Your task to perform on an android device: Go to internet settings Image 0: 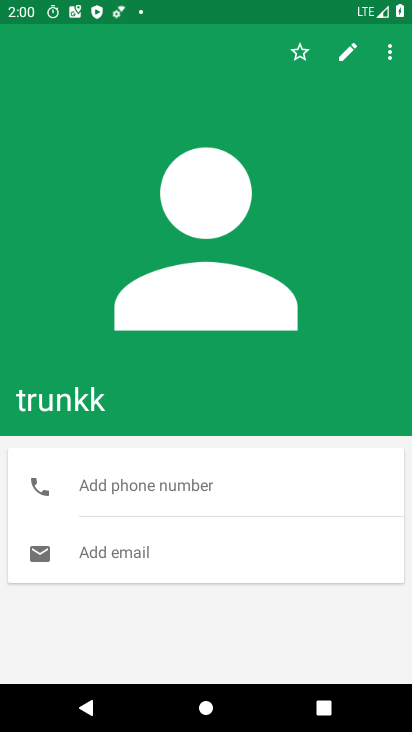
Step 0: press home button
Your task to perform on an android device: Go to internet settings Image 1: 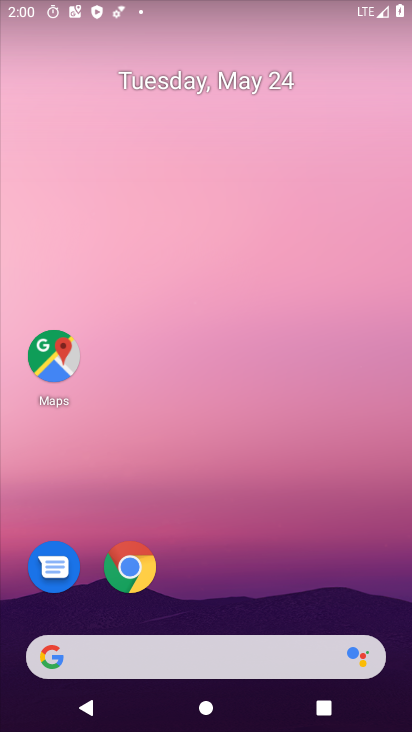
Step 1: drag from (181, 612) to (259, 89)
Your task to perform on an android device: Go to internet settings Image 2: 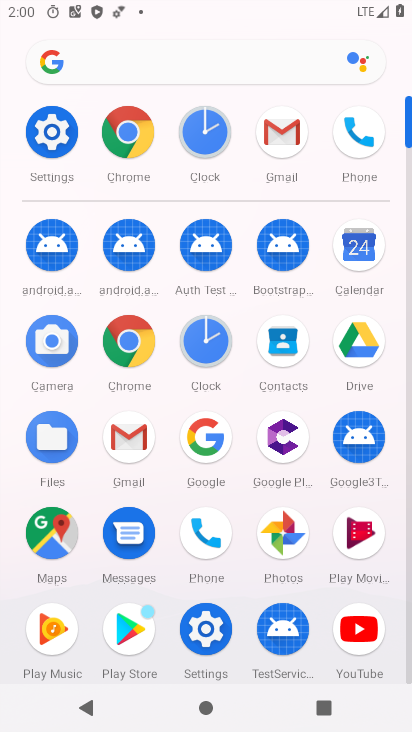
Step 2: click (64, 150)
Your task to perform on an android device: Go to internet settings Image 3: 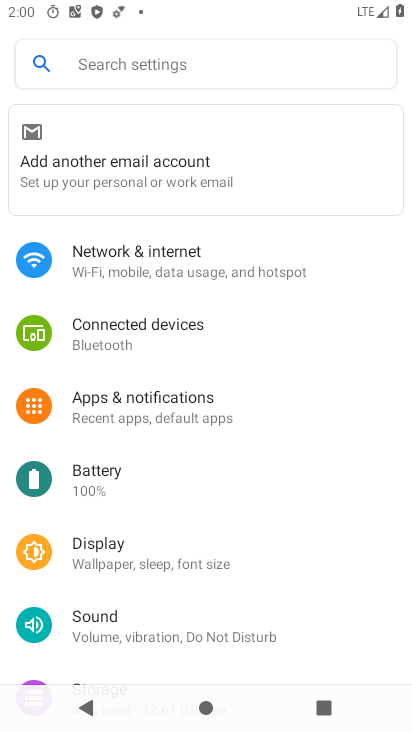
Step 3: click (182, 267)
Your task to perform on an android device: Go to internet settings Image 4: 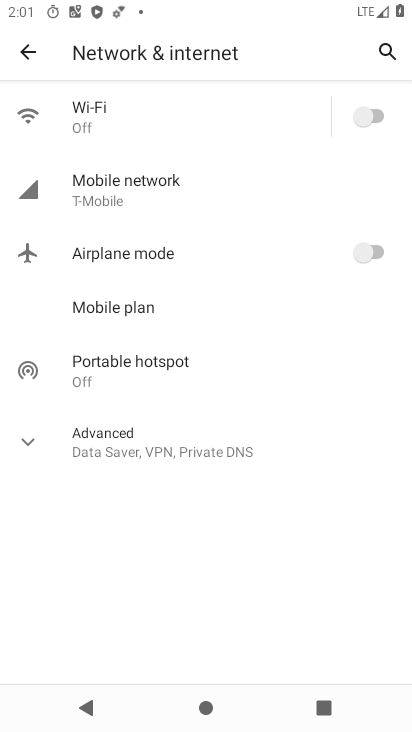
Step 4: task complete